Your task to perform on an android device: check google app version Image 0: 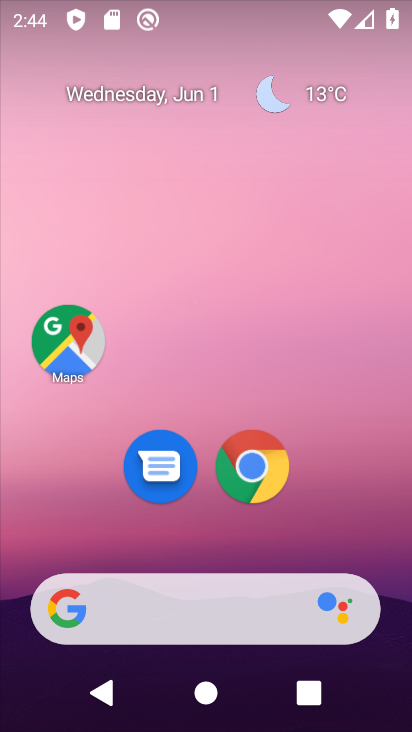
Step 0: click (260, 471)
Your task to perform on an android device: check google app version Image 1: 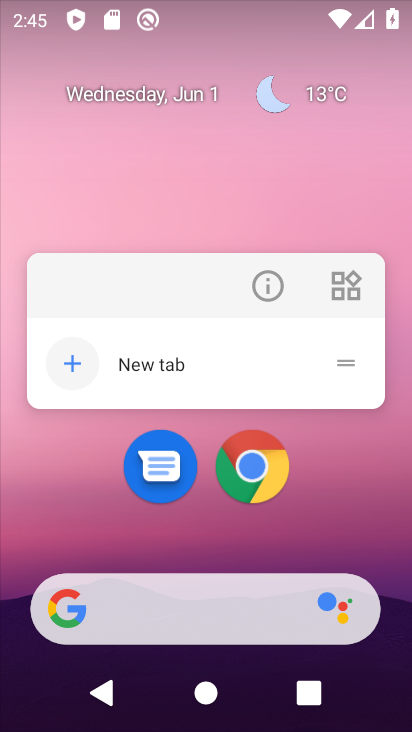
Step 1: click (268, 286)
Your task to perform on an android device: check google app version Image 2: 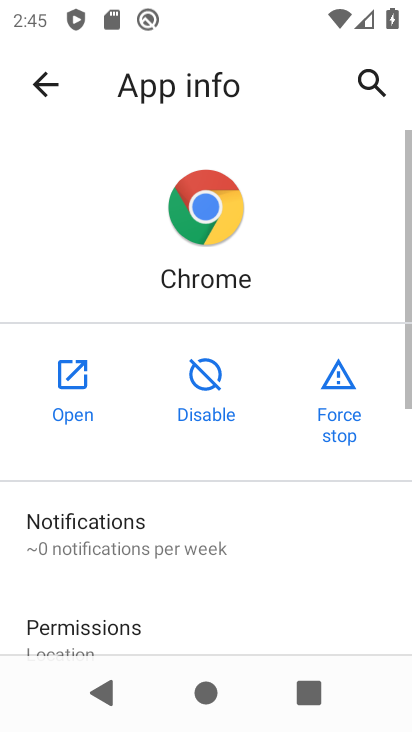
Step 2: drag from (230, 610) to (206, 100)
Your task to perform on an android device: check google app version Image 3: 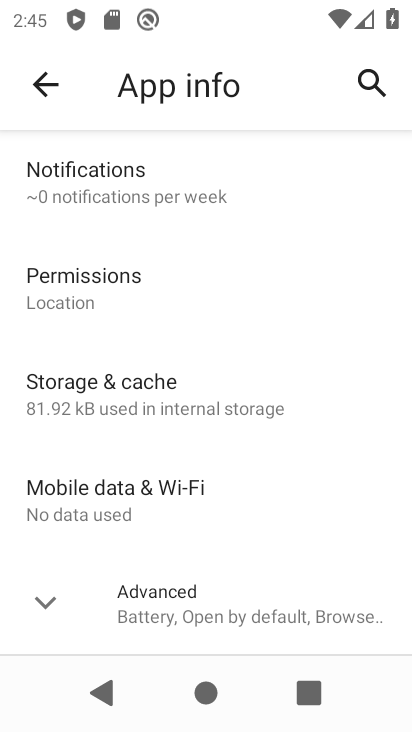
Step 3: click (283, 600)
Your task to perform on an android device: check google app version Image 4: 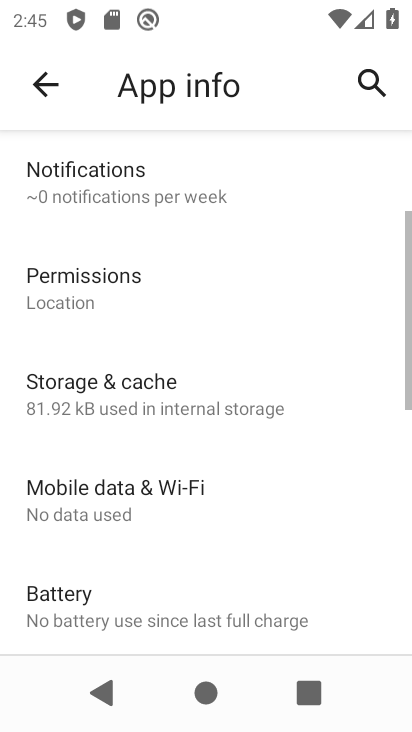
Step 4: task complete